Your task to perform on an android device: Go to Yahoo.com Image 0: 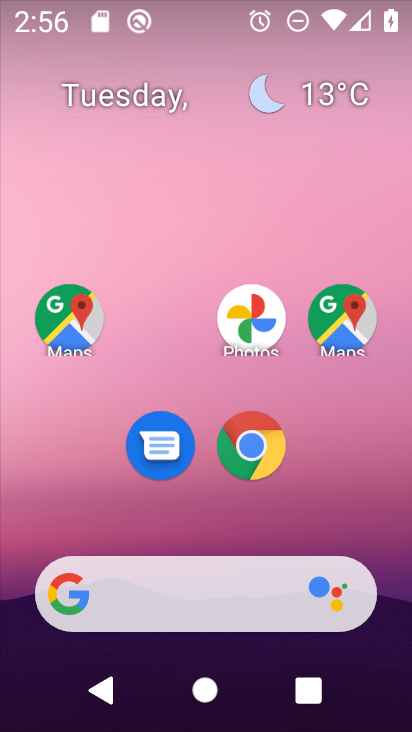
Step 0: drag from (380, 510) to (363, 182)
Your task to perform on an android device: Go to Yahoo.com Image 1: 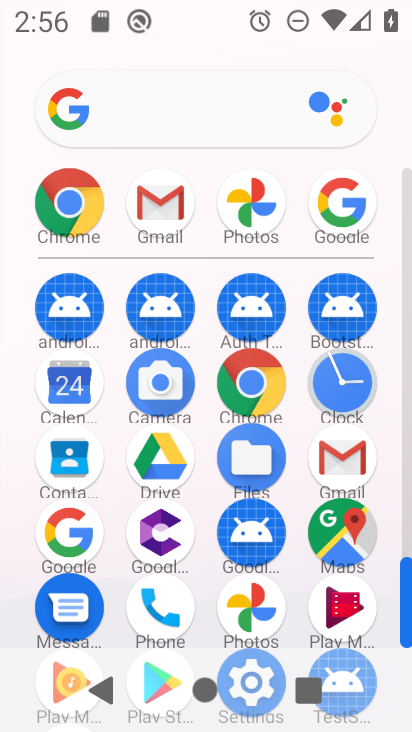
Step 1: click (263, 392)
Your task to perform on an android device: Go to Yahoo.com Image 2: 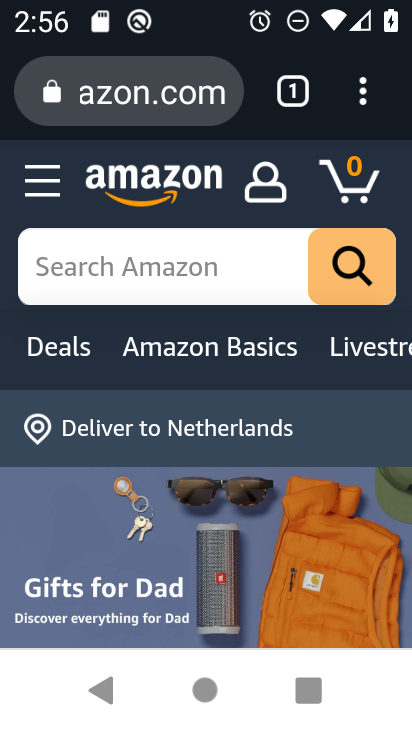
Step 2: press back button
Your task to perform on an android device: Go to Yahoo.com Image 3: 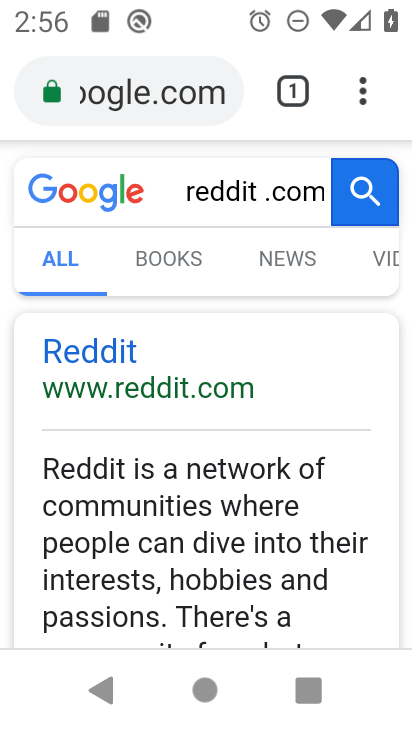
Step 3: press back button
Your task to perform on an android device: Go to Yahoo.com Image 4: 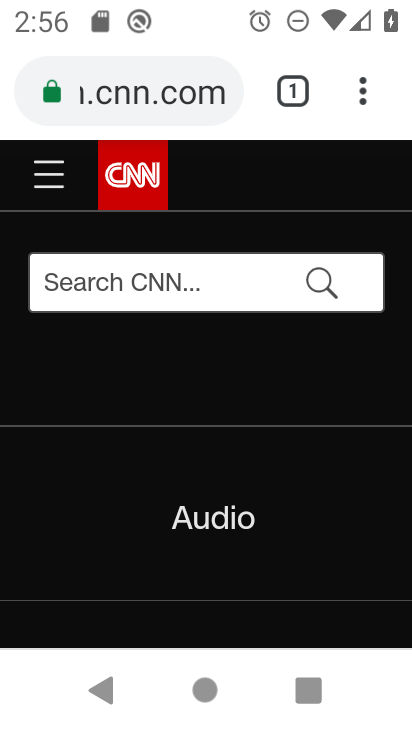
Step 4: press back button
Your task to perform on an android device: Go to Yahoo.com Image 5: 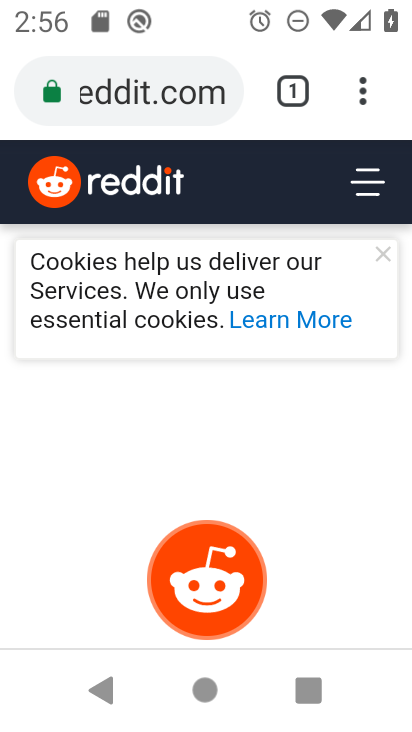
Step 5: press back button
Your task to perform on an android device: Go to Yahoo.com Image 6: 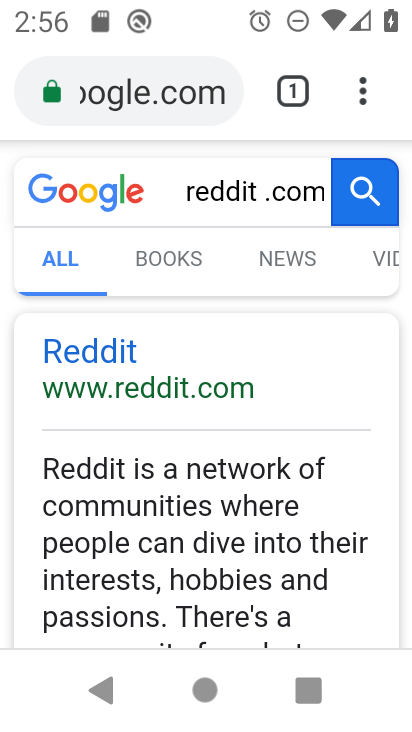
Step 6: click (198, 94)
Your task to perform on an android device: Go to Yahoo.com Image 7: 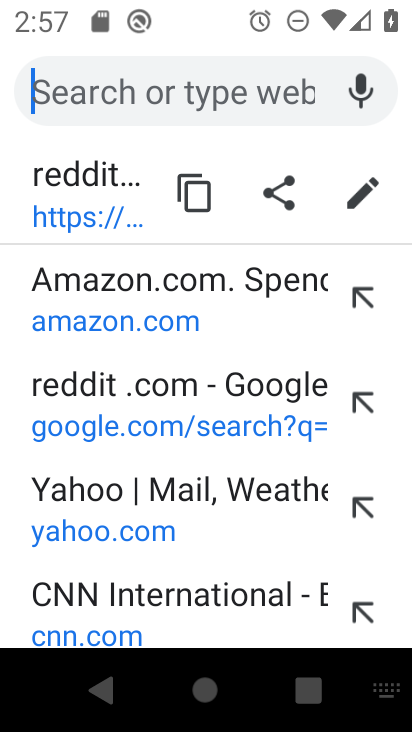
Step 7: type "yahoo.com"
Your task to perform on an android device: Go to Yahoo.com Image 8: 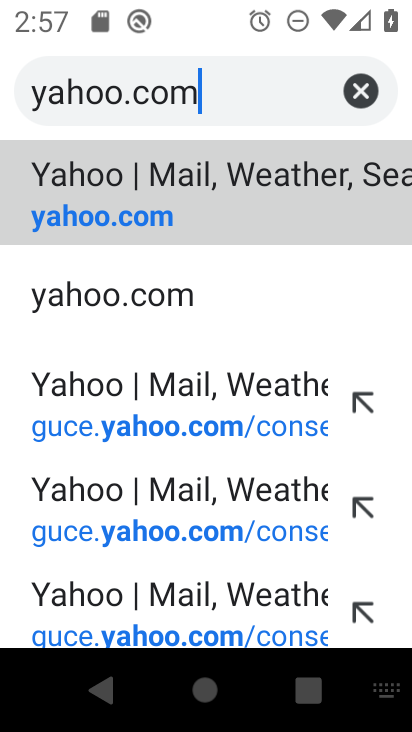
Step 8: click (179, 304)
Your task to perform on an android device: Go to Yahoo.com Image 9: 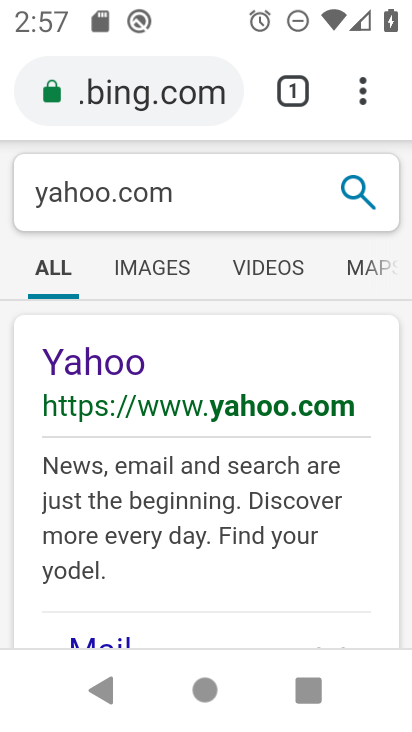
Step 9: task complete